Your task to perform on an android device: Open Chrome and go to the settings page Image 0: 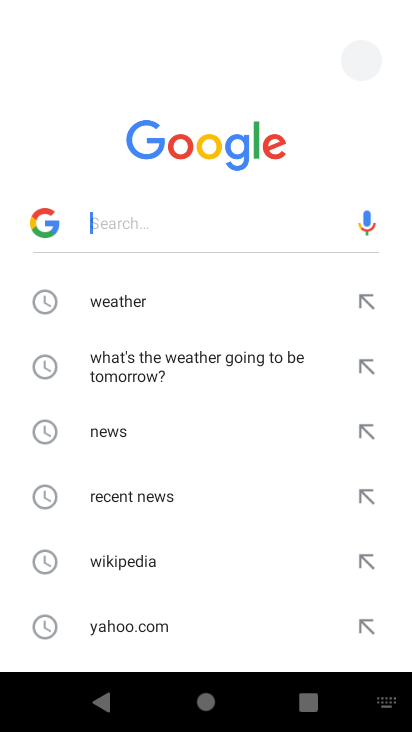
Step 0: press home button
Your task to perform on an android device: Open Chrome and go to the settings page Image 1: 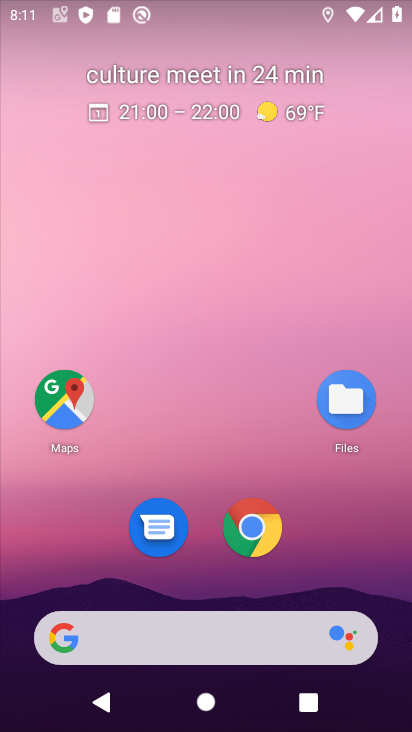
Step 1: click (249, 536)
Your task to perform on an android device: Open Chrome and go to the settings page Image 2: 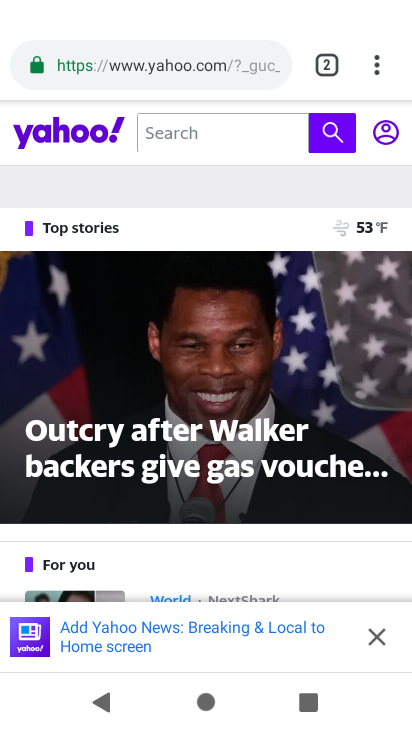
Step 2: click (372, 60)
Your task to perform on an android device: Open Chrome and go to the settings page Image 3: 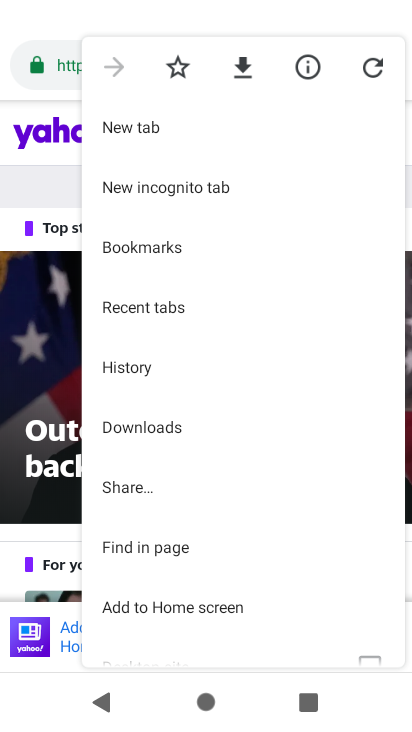
Step 3: drag from (263, 553) to (262, 248)
Your task to perform on an android device: Open Chrome and go to the settings page Image 4: 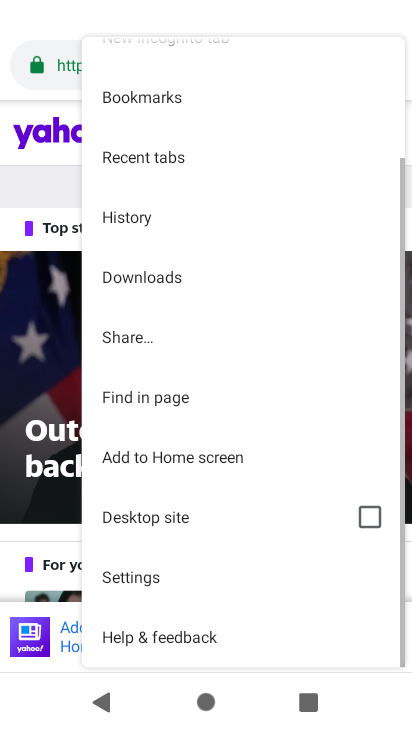
Step 4: click (289, 572)
Your task to perform on an android device: Open Chrome and go to the settings page Image 5: 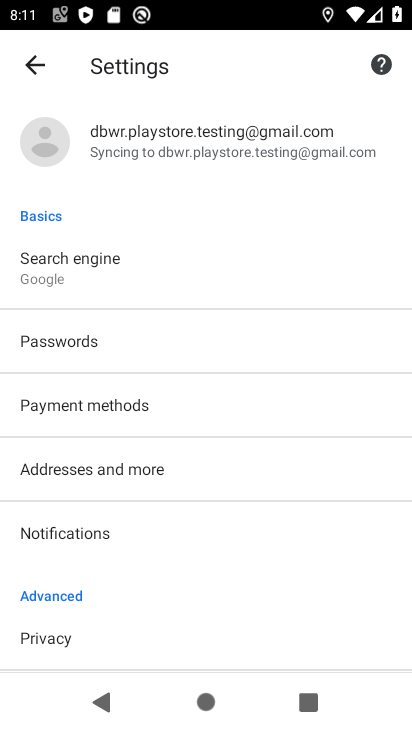
Step 5: task complete